Your task to perform on an android device: Open Google Image 0: 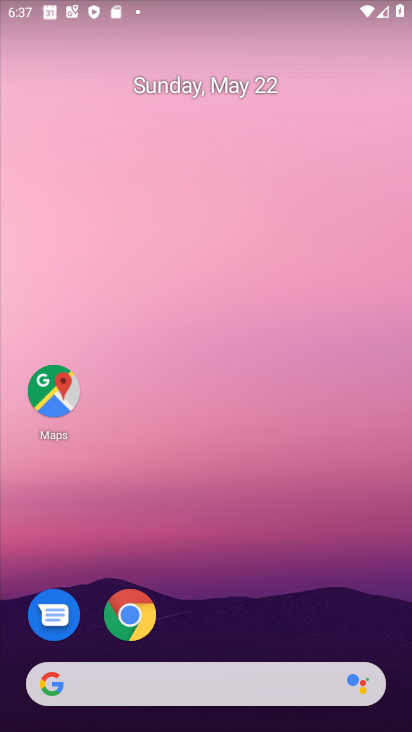
Step 0: click (45, 678)
Your task to perform on an android device: Open Google Image 1: 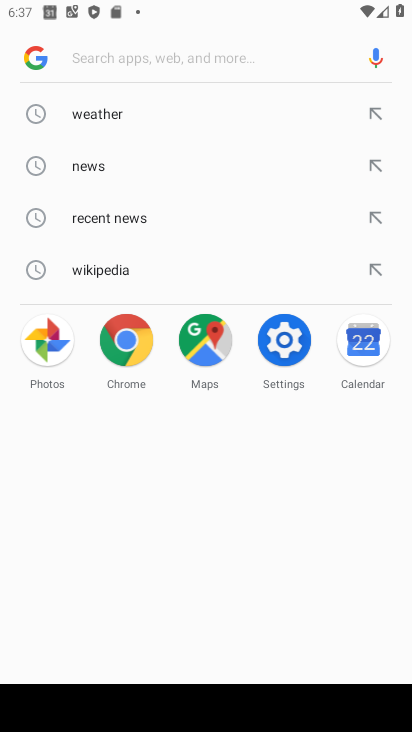
Step 1: click (37, 49)
Your task to perform on an android device: Open Google Image 2: 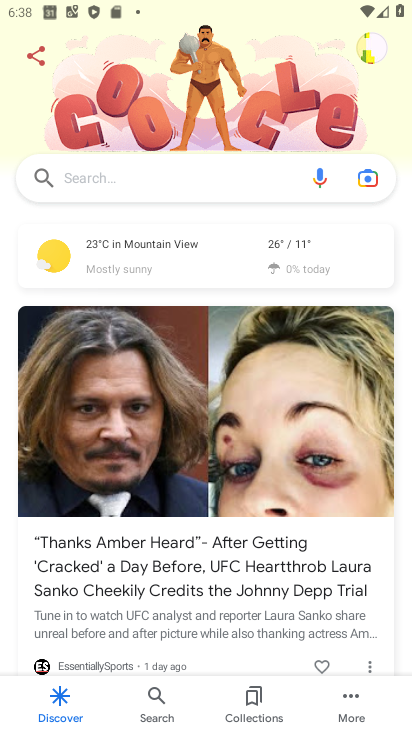
Step 2: task complete